Your task to perform on an android device: Open the phone app and click the voicemail tab. Image 0: 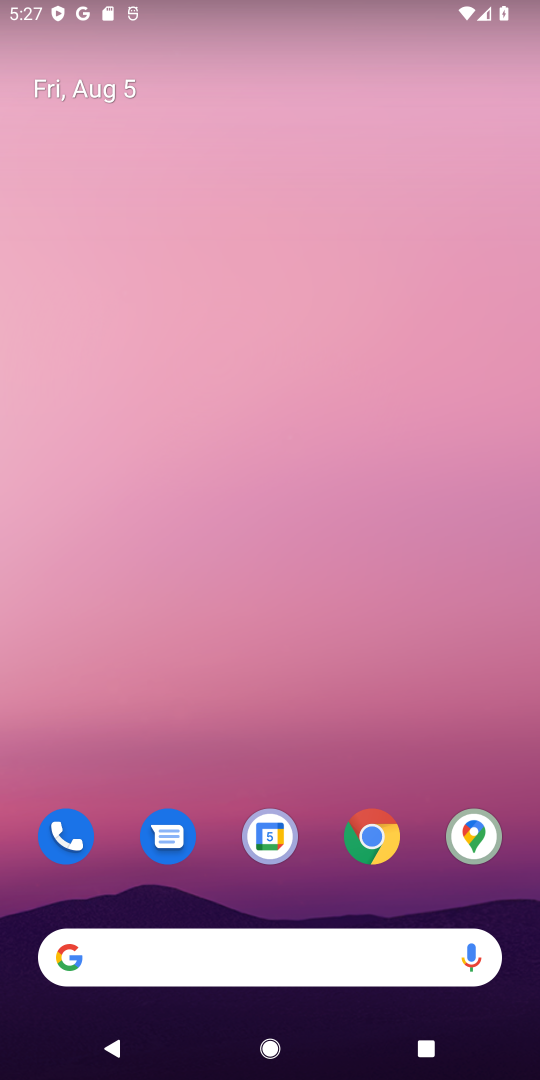
Step 0: press home button
Your task to perform on an android device: Open the phone app and click the voicemail tab. Image 1: 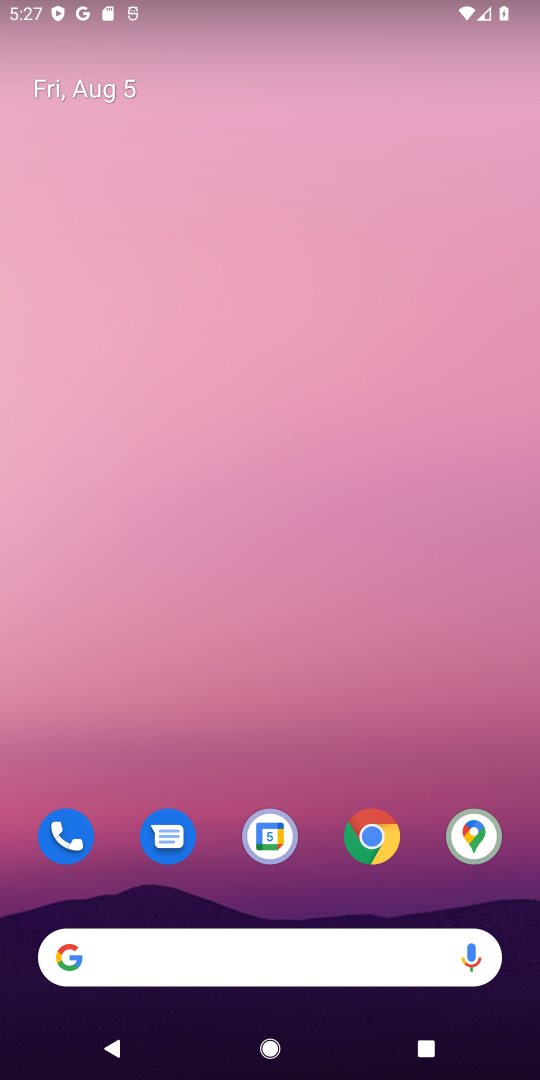
Step 1: click (75, 825)
Your task to perform on an android device: Open the phone app and click the voicemail tab. Image 2: 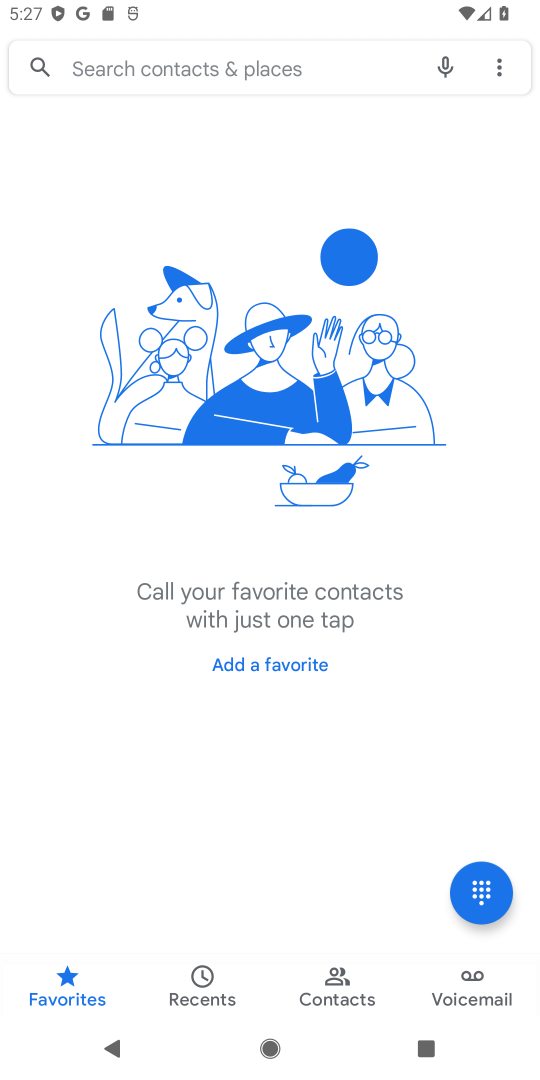
Step 2: click (474, 977)
Your task to perform on an android device: Open the phone app and click the voicemail tab. Image 3: 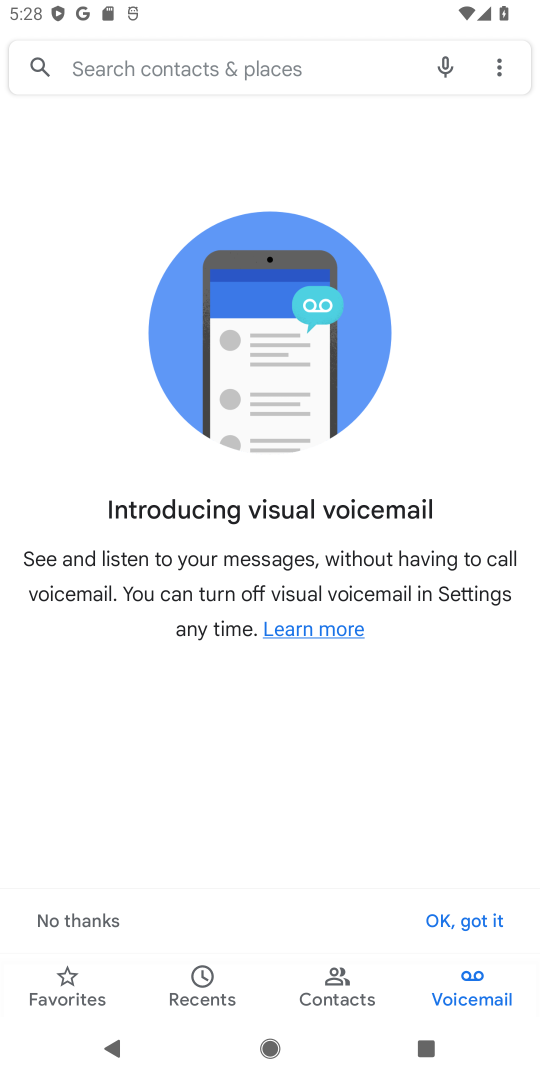
Step 3: task complete